Your task to perform on an android device: toggle priority inbox in the gmail app Image 0: 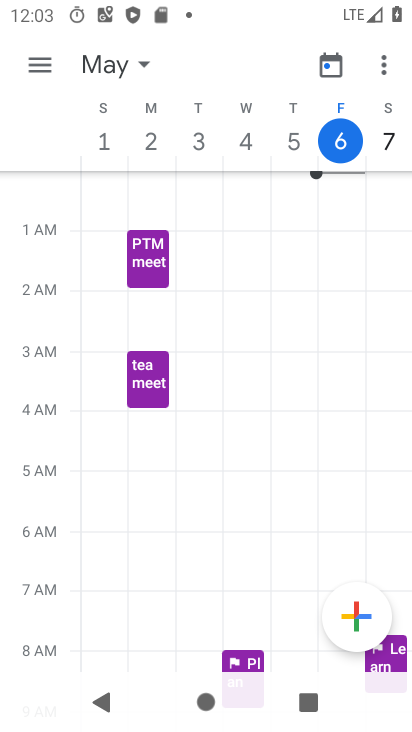
Step 0: press home button
Your task to perform on an android device: toggle priority inbox in the gmail app Image 1: 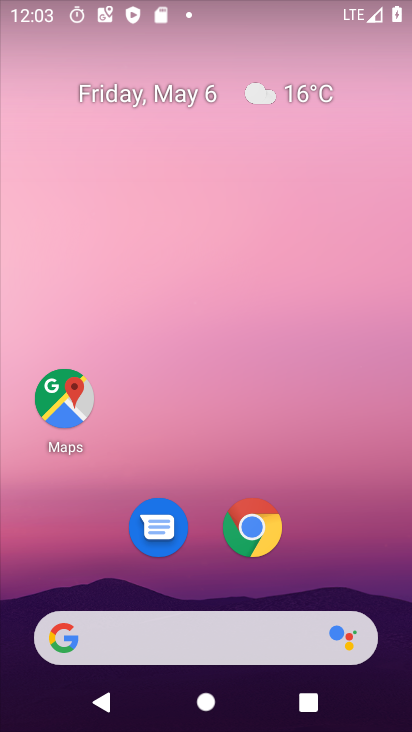
Step 1: drag from (177, 374) to (205, 74)
Your task to perform on an android device: toggle priority inbox in the gmail app Image 2: 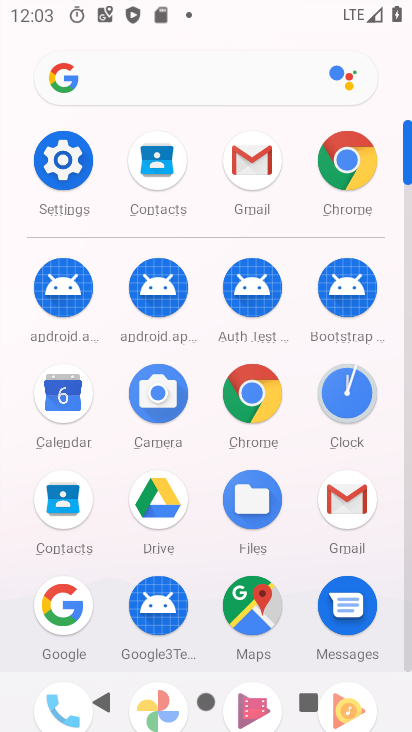
Step 2: click (337, 506)
Your task to perform on an android device: toggle priority inbox in the gmail app Image 3: 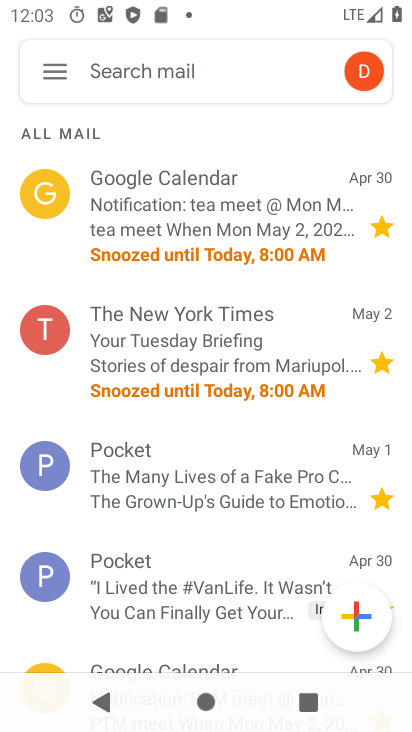
Step 3: click (40, 78)
Your task to perform on an android device: toggle priority inbox in the gmail app Image 4: 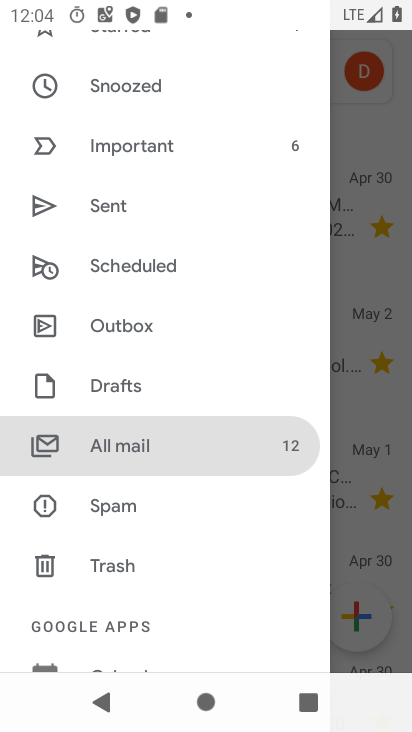
Step 4: drag from (131, 477) to (207, 211)
Your task to perform on an android device: toggle priority inbox in the gmail app Image 5: 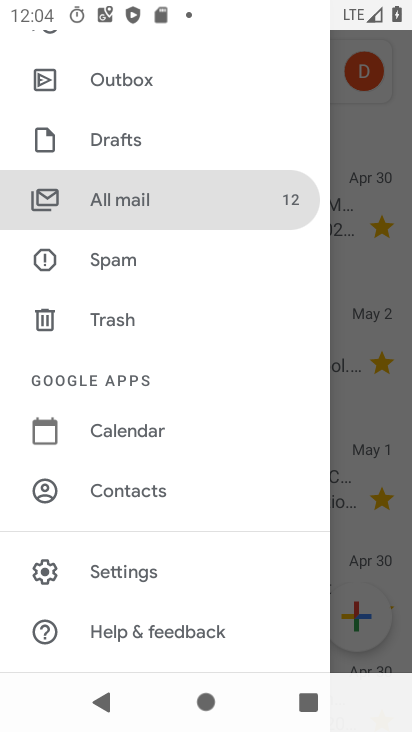
Step 5: click (139, 572)
Your task to perform on an android device: toggle priority inbox in the gmail app Image 6: 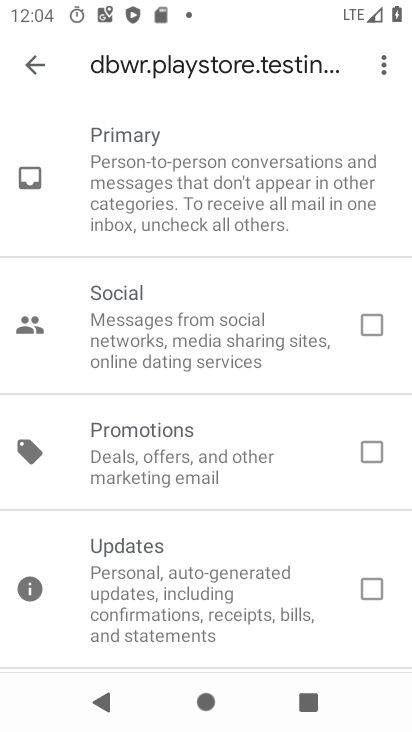
Step 6: click (38, 59)
Your task to perform on an android device: toggle priority inbox in the gmail app Image 7: 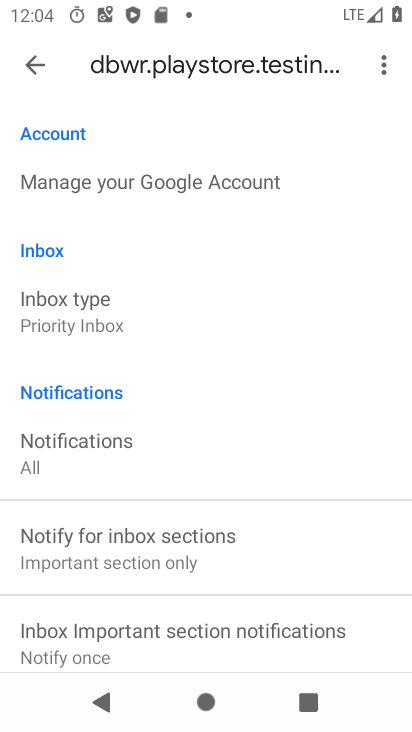
Step 7: click (103, 307)
Your task to perform on an android device: toggle priority inbox in the gmail app Image 8: 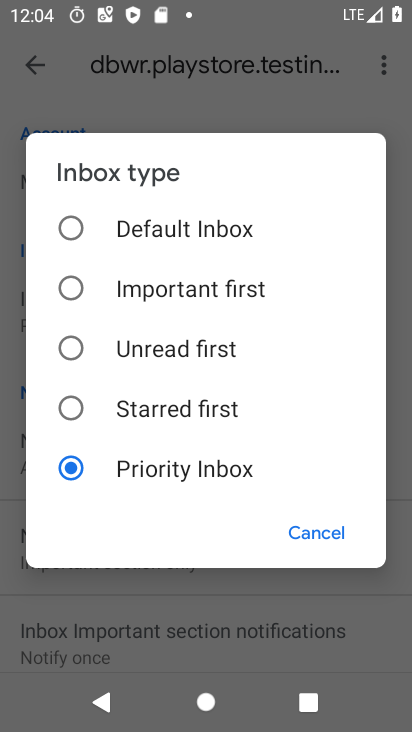
Step 8: click (147, 228)
Your task to perform on an android device: toggle priority inbox in the gmail app Image 9: 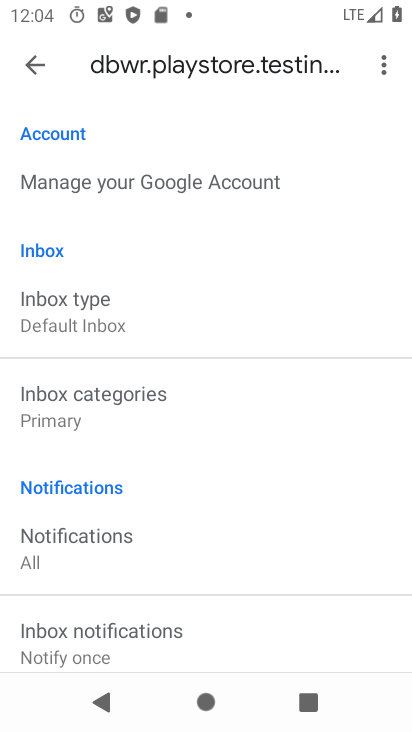
Step 9: task complete